Your task to perform on an android device: Search for sushi restaurants on Maps Image 0: 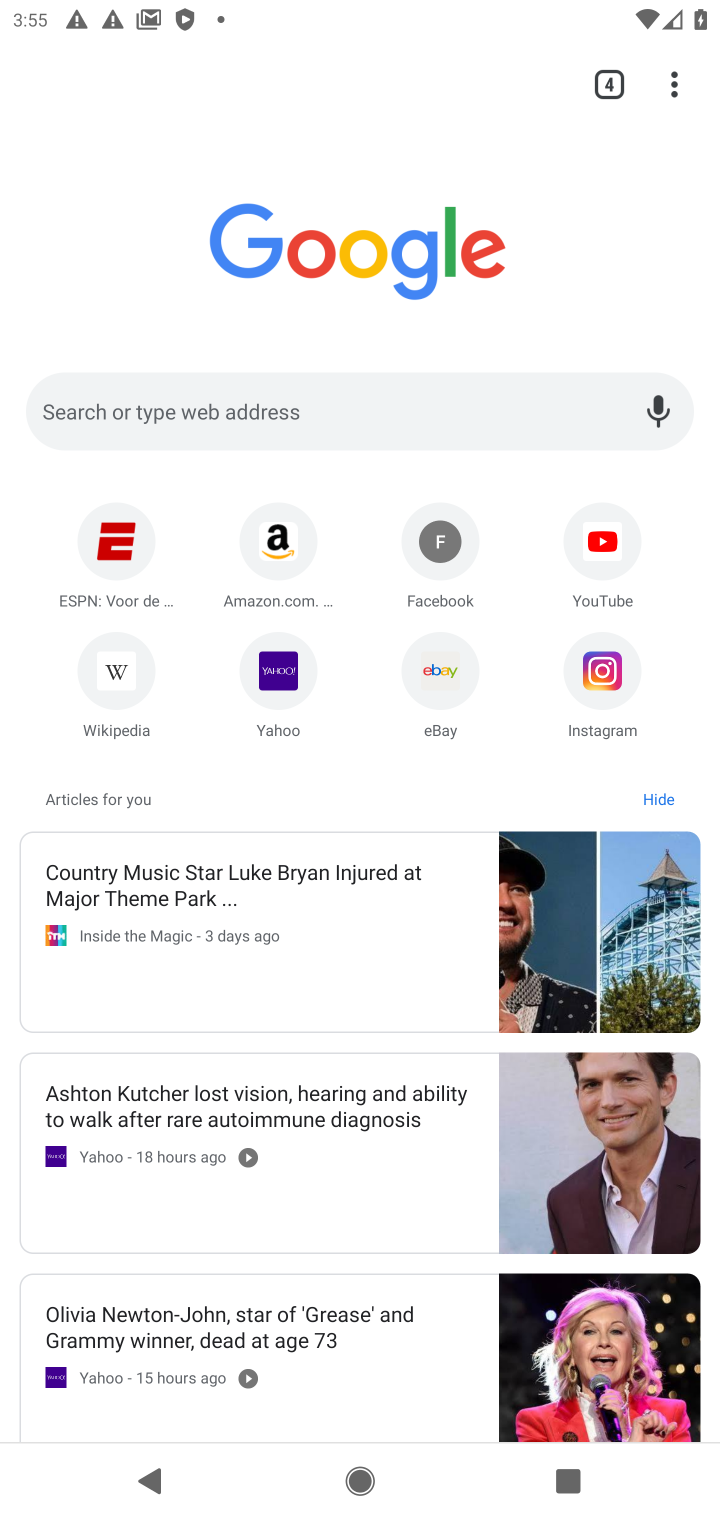
Step 0: press home button
Your task to perform on an android device: Search for sushi restaurants on Maps Image 1: 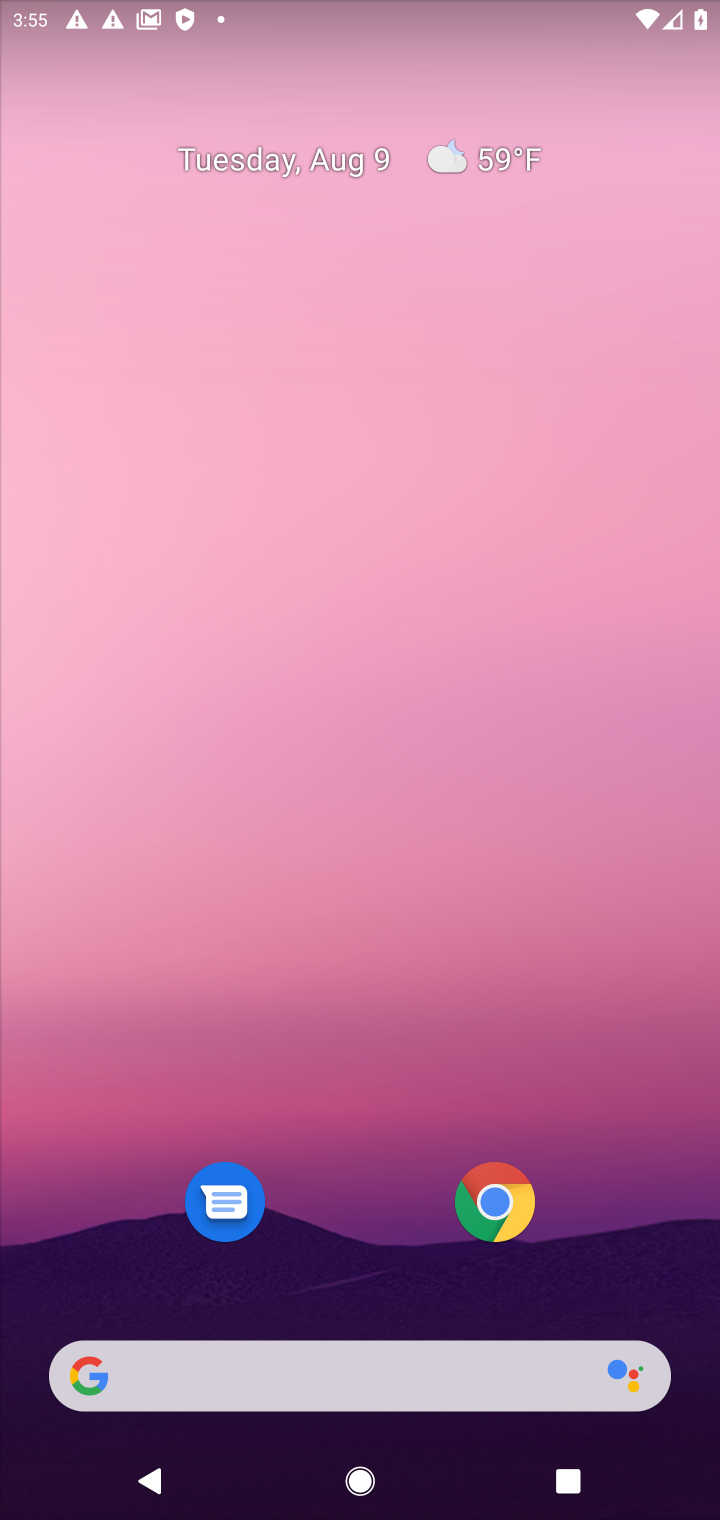
Step 1: drag from (365, 1265) to (367, 172)
Your task to perform on an android device: Search for sushi restaurants on Maps Image 2: 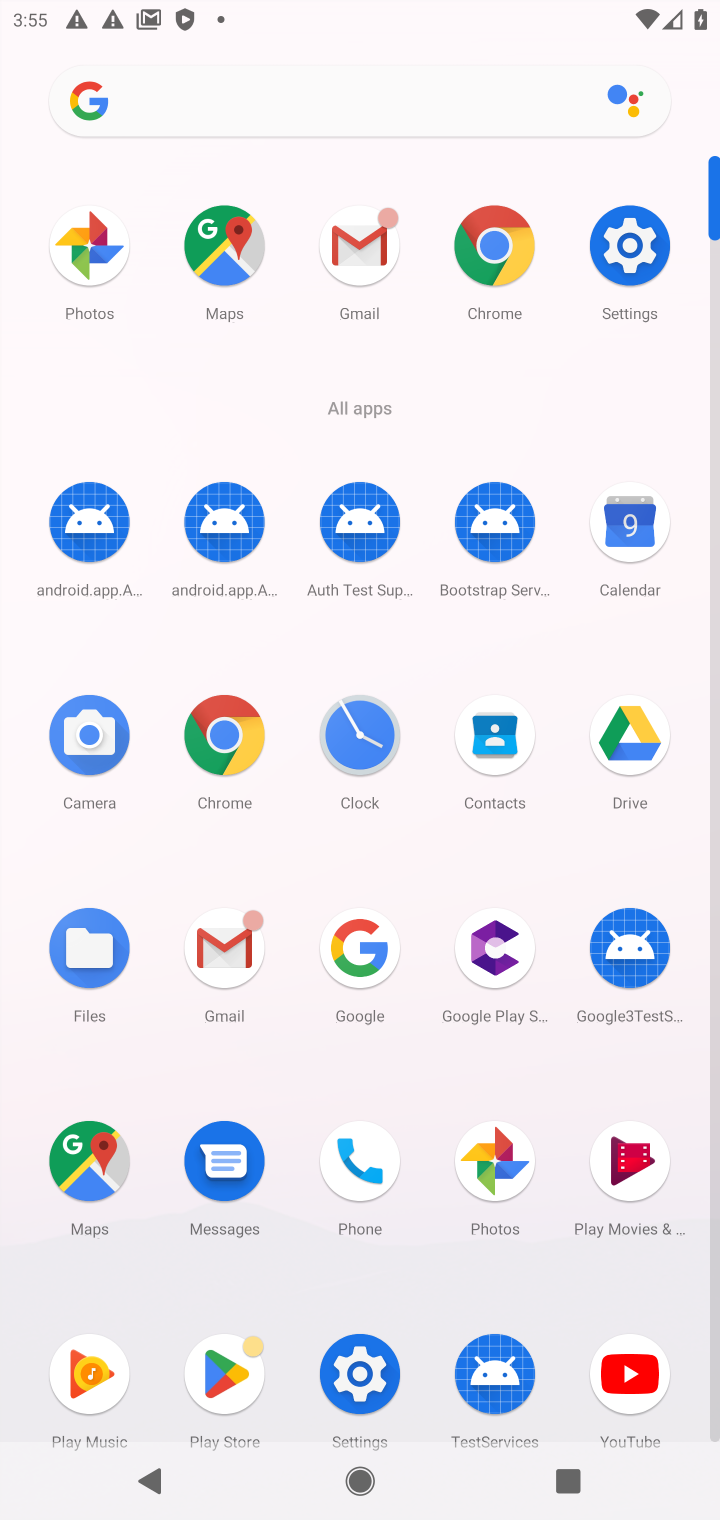
Step 2: click (214, 241)
Your task to perform on an android device: Search for sushi restaurants on Maps Image 3: 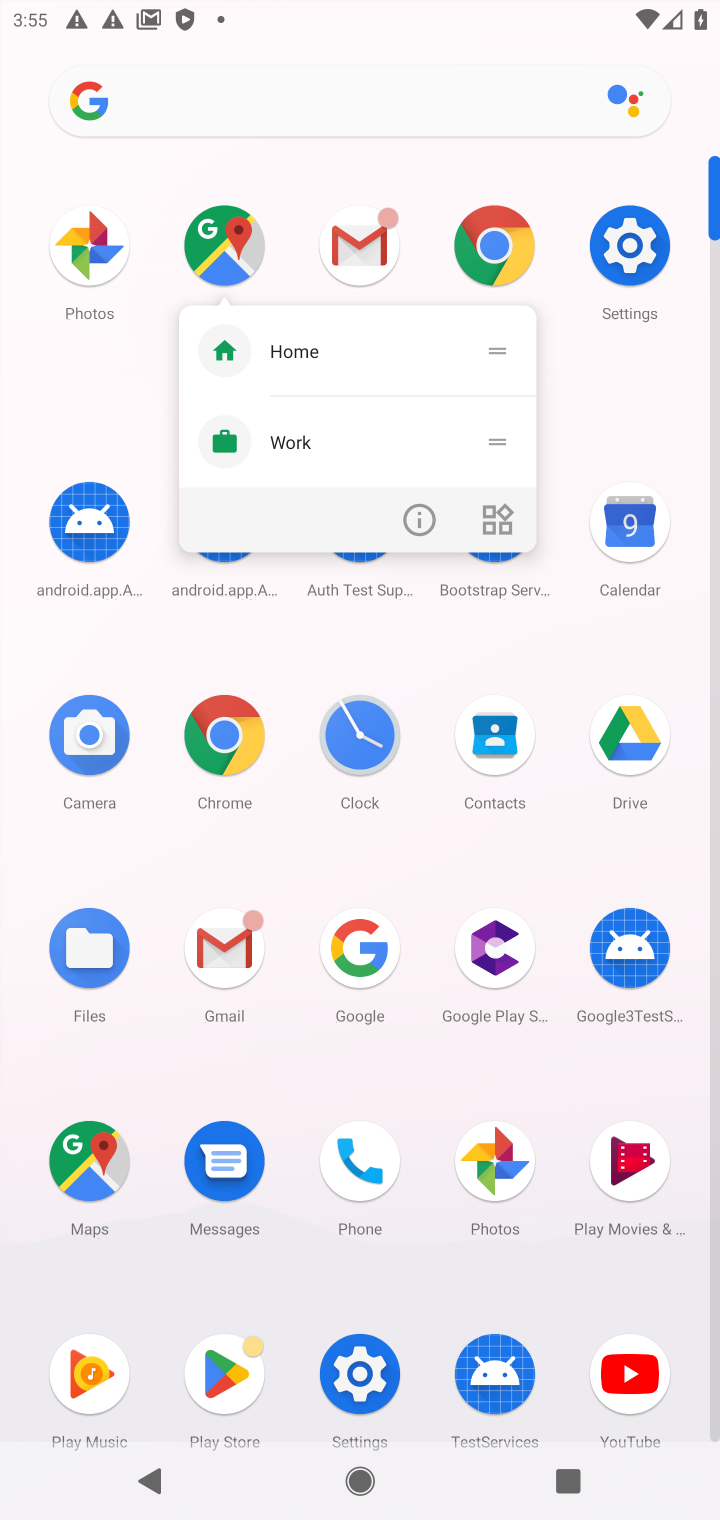
Step 3: click (203, 223)
Your task to perform on an android device: Search for sushi restaurants on Maps Image 4: 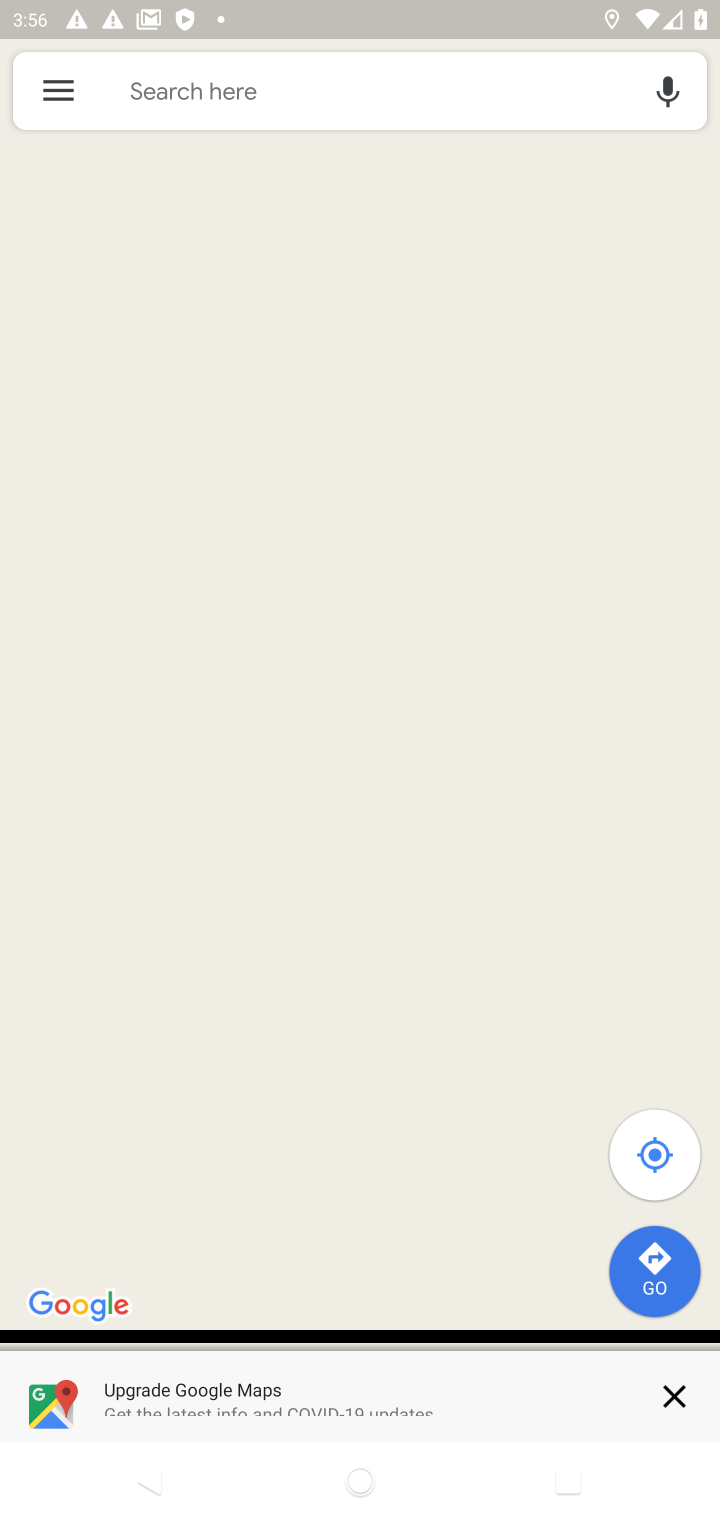
Step 4: click (198, 75)
Your task to perform on an android device: Search for sushi restaurants on Maps Image 5: 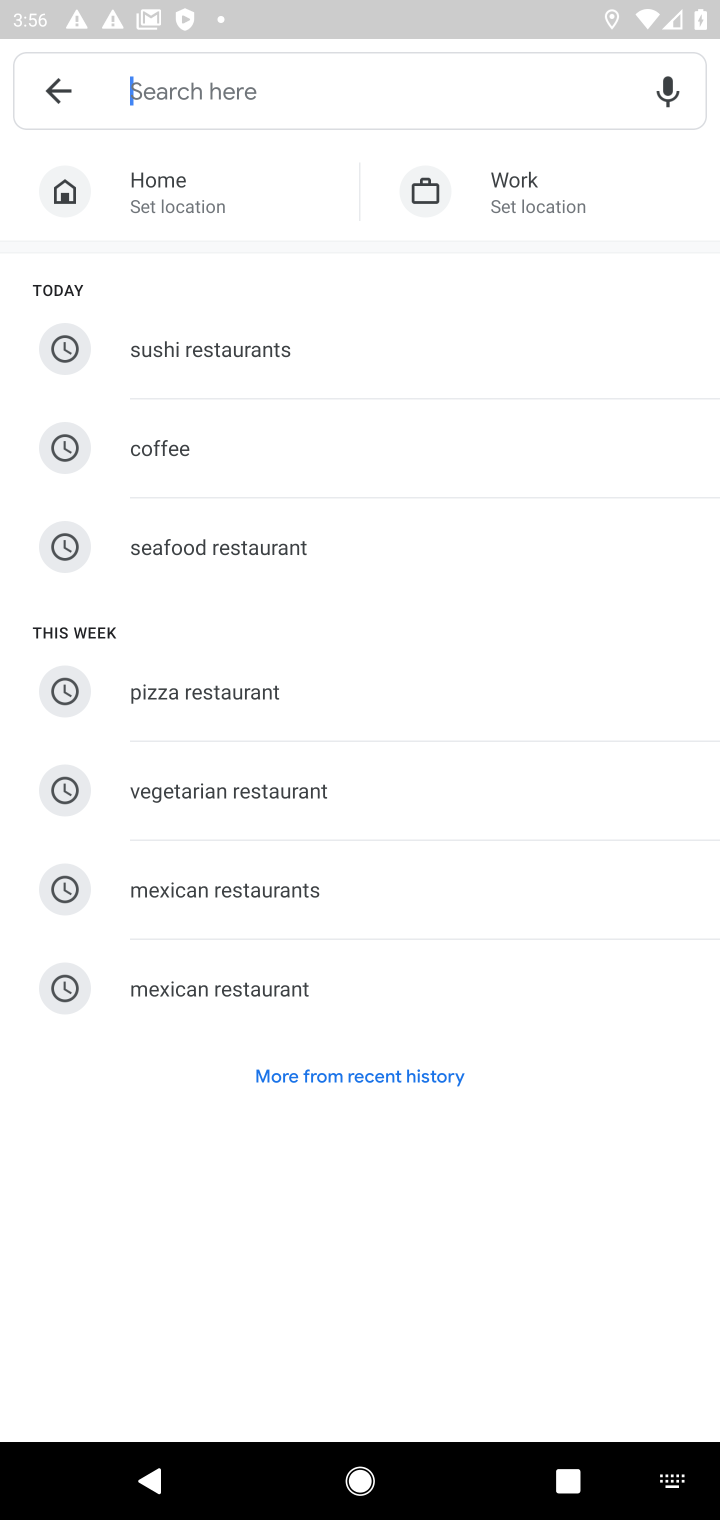
Step 5: click (211, 343)
Your task to perform on an android device: Search for sushi restaurants on Maps Image 6: 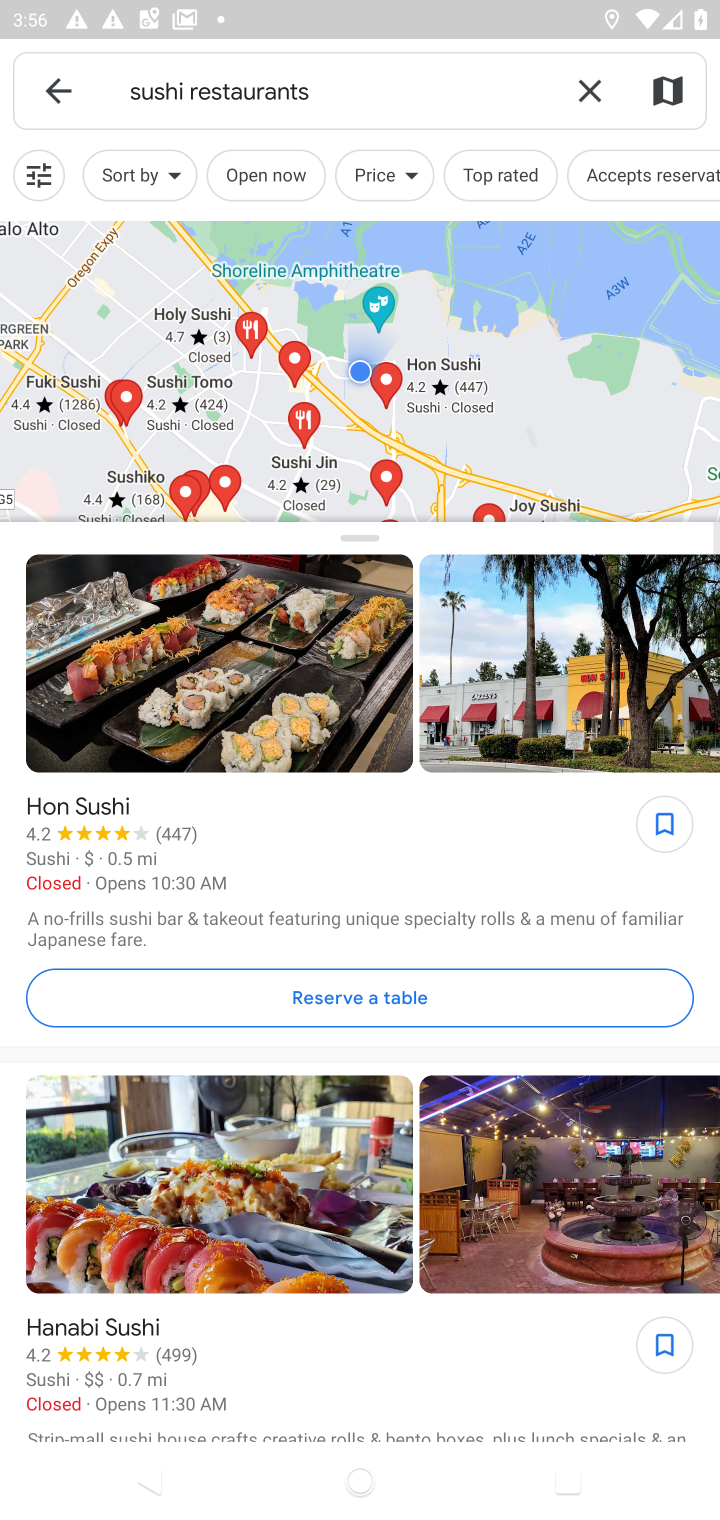
Step 6: task complete